Your task to perform on an android device: Open privacy settings Image 0: 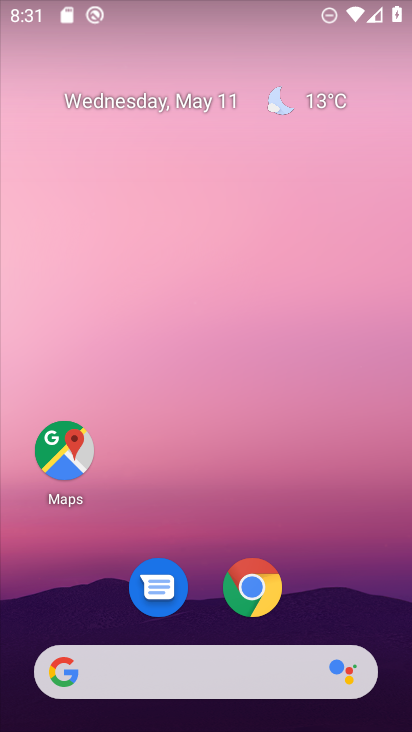
Step 0: drag from (363, 600) to (274, 200)
Your task to perform on an android device: Open privacy settings Image 1: 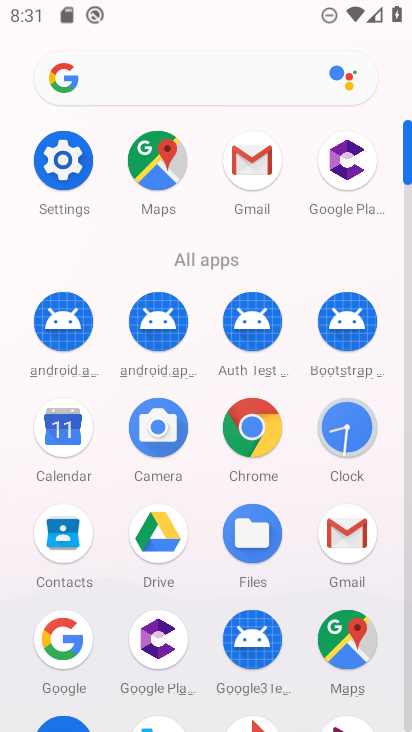
Step 1: click (62, 177)
Your task to perform on an android device: Open privacy settings Image 2: 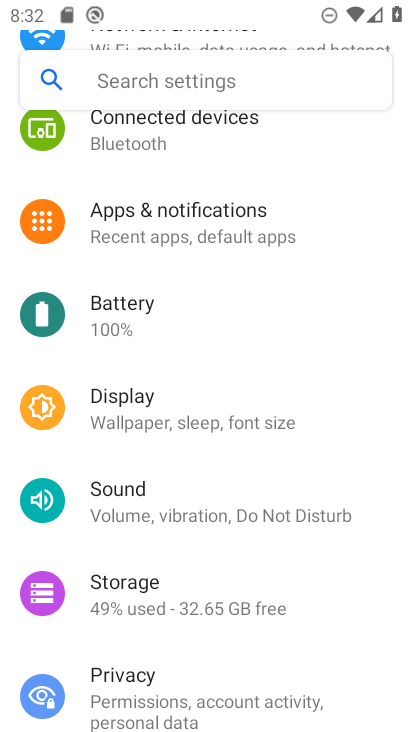
Step 2: click (242, 697)
Your task to perform on an android device: Open privacy settings Image 3: 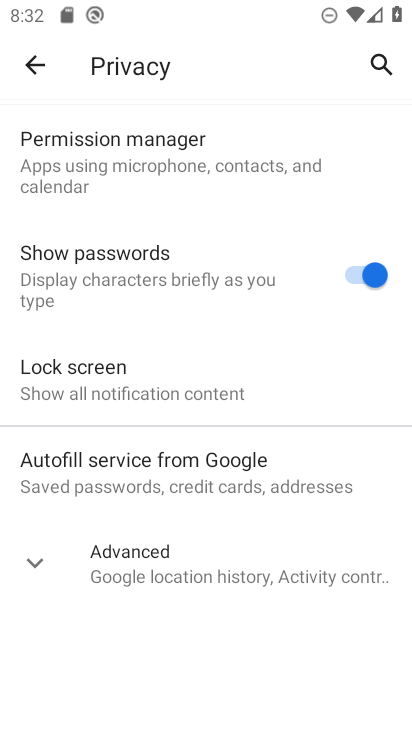
Step 3: task complete